Your task to perform on an android device: all mails in gmail Image 0: 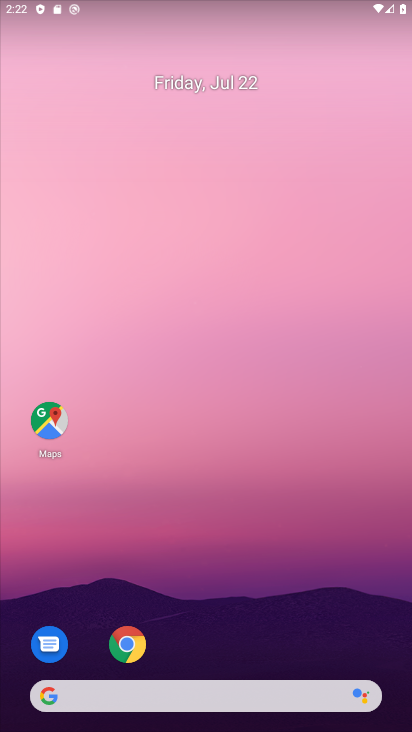
Step 0: drag from (212, 525) to (187, 202)
Your task to perform on an android device: all mails in gmail Image 1: 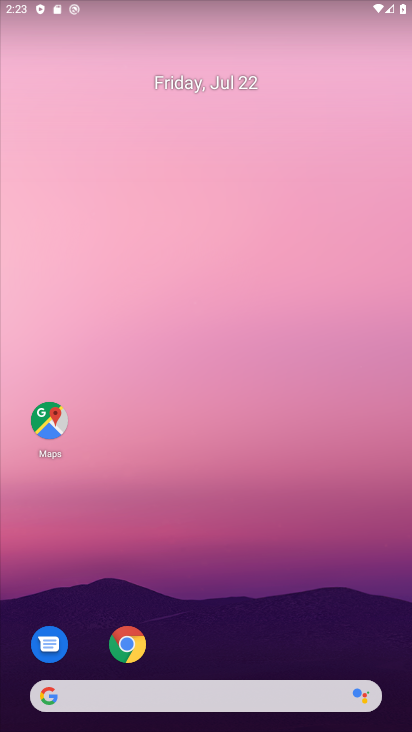
Step 1: drag from (213, 647) to (146, 0)
Your task to perform on an android device: all mails in gmail Image 2: 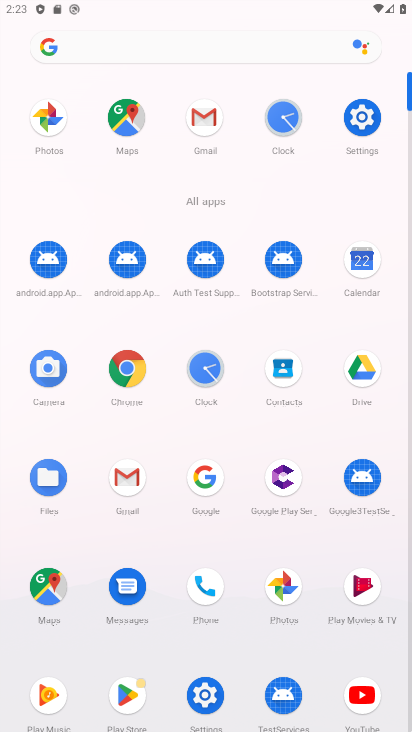
Step 2: click (202, 121)
Your task to perform on an android device: all mails in gmail Image 3: 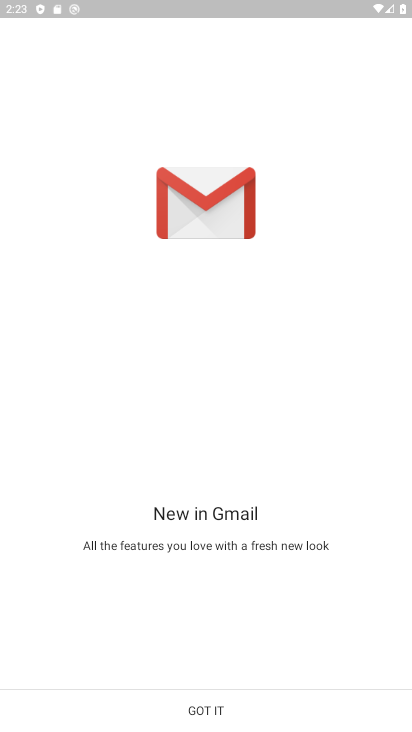
Step 3: click (194, 710)
Your task to perform on an android device: all mails in gmail Image 4: 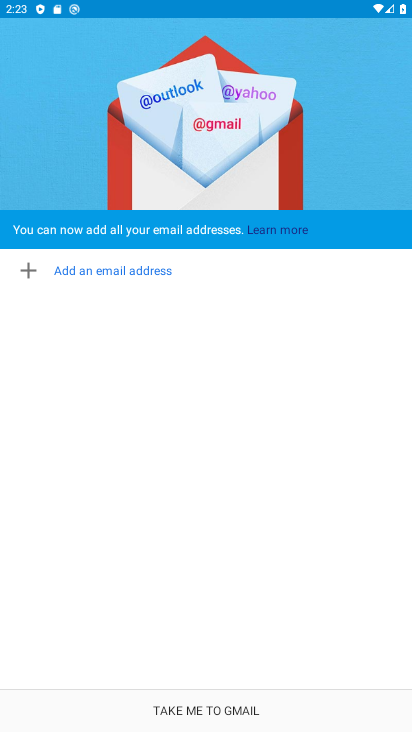
Step 4: click (200, 712)
Your task to perform on an android device: all mails in gmail Image 5: 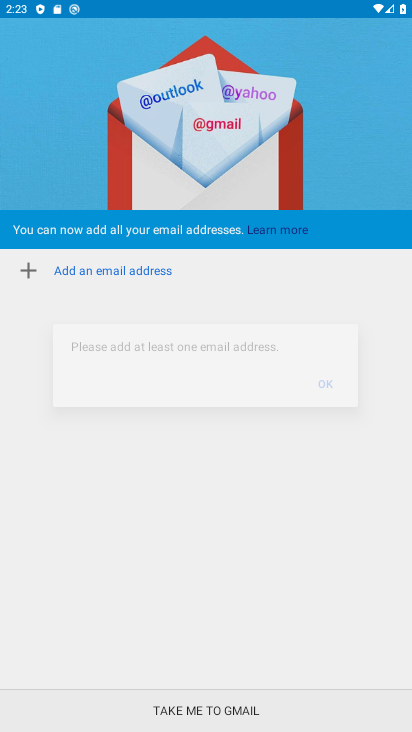
Step 5: click (200, 712)
Your task to perform on an android device: all mails in gmail Image 6: 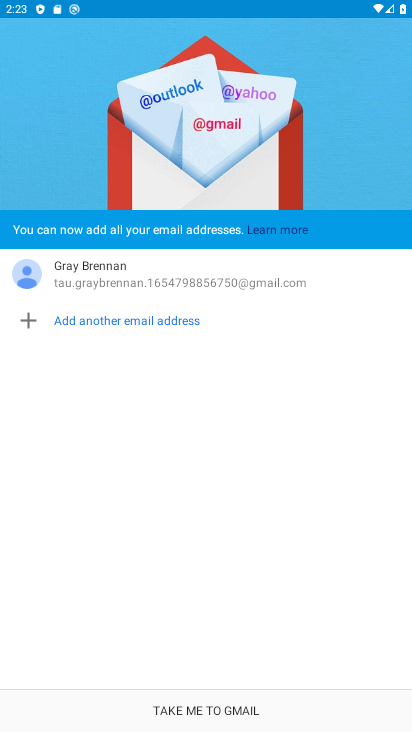
Step 6: click (214, 712)
Your task to perform on an android device: all mails in gmail Image 7: 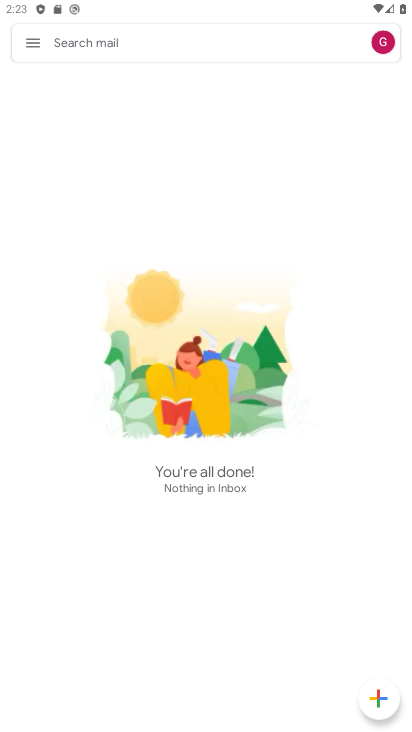
Step 7: click (27, 44)
Your task to perform on an android device: all mails in gmail Image 8: 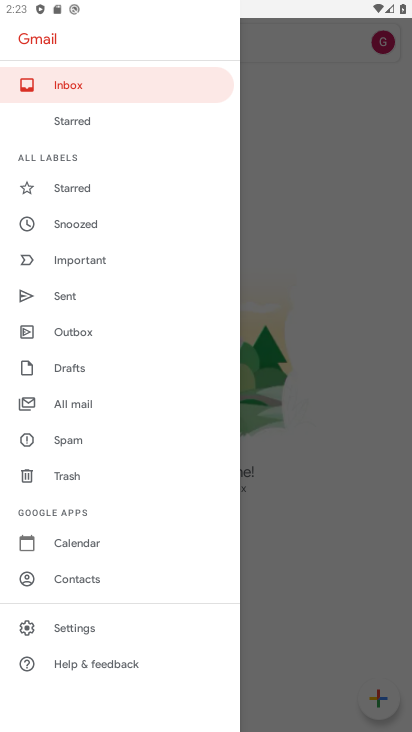
Step 8: click (81, 401)
Your task to perform on an android device: all mails in gmail Image 9: 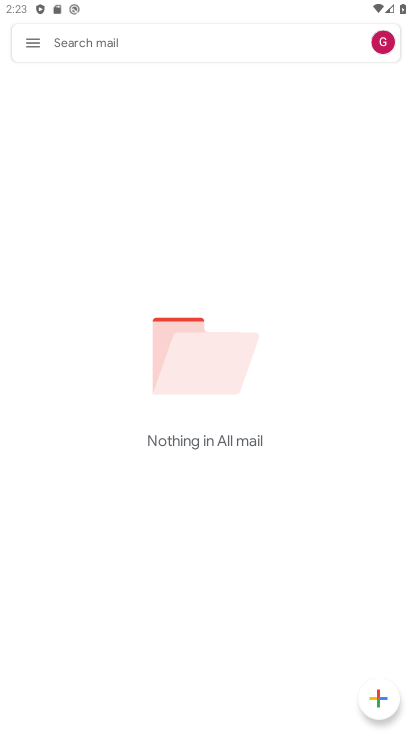
Step 9: task complete